Your task to perform on an android device: Do I have any events tomorrow? Image 0: 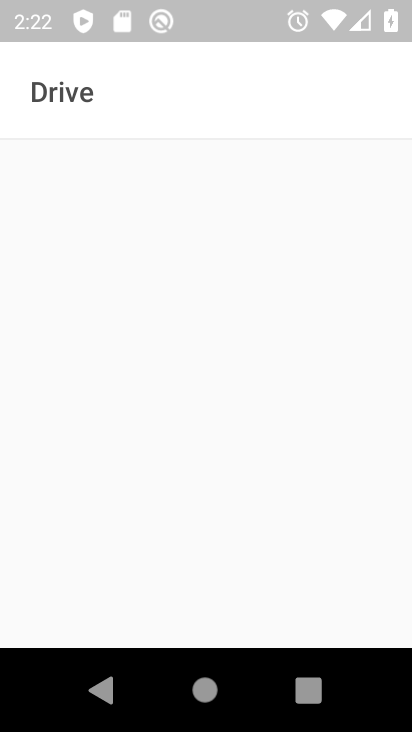
Step 0: press home button
Your task to perform on an android device: Do I have any events tomorrow? Image 1: 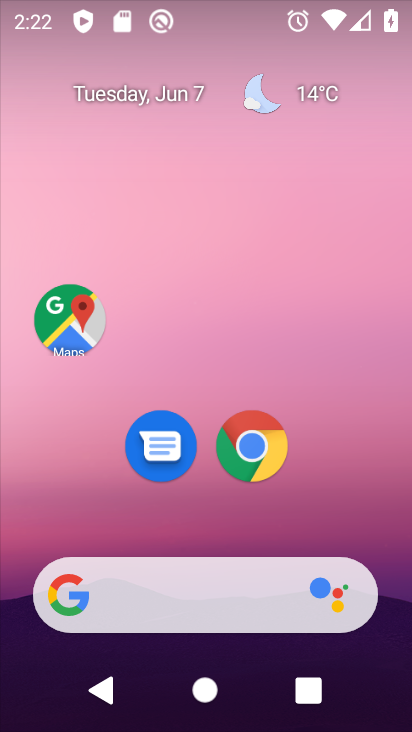
Step 1: drag from (394, 562) to (344, 100)
Your task to perform on an android device: Do I have any events tomorrow? Image 2: 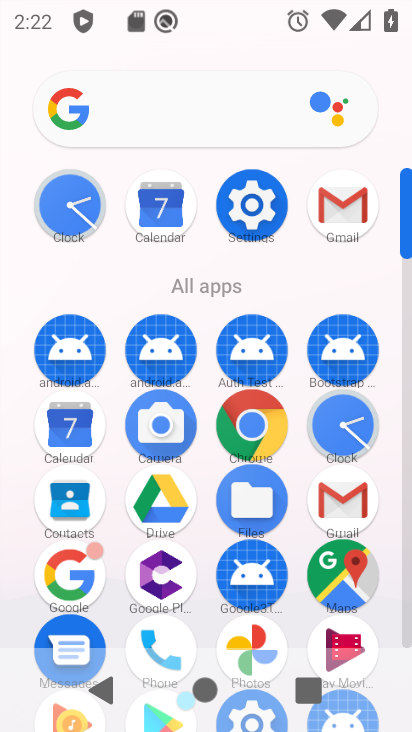
Step 2: click (67, 422)
Your task to perform on an android device: Do I have any events tomorrow? Image 3: 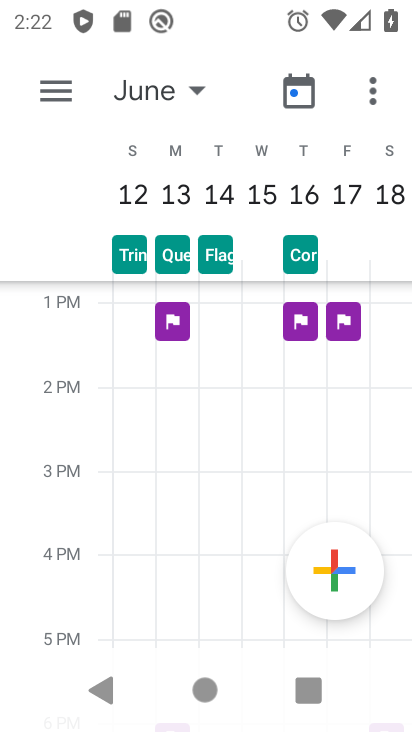
Step 3: click (59, 96)
Your task to perform on an android device: Do I have any events tomorrow? Image 4: 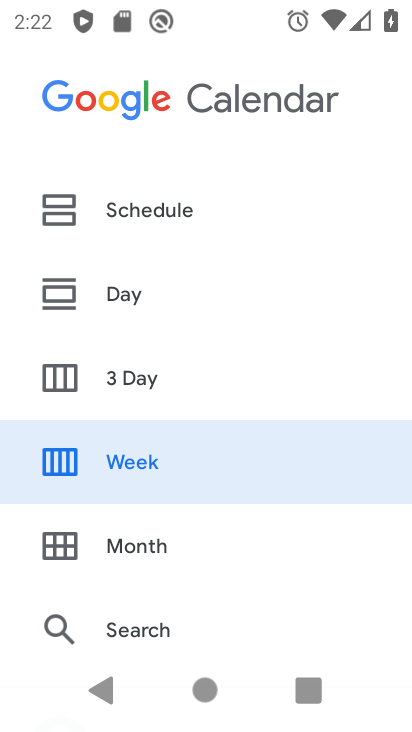
Step 4: click (141, 295)
Your task to perform on an android device: Do I have any events tomorrow? Image 5: 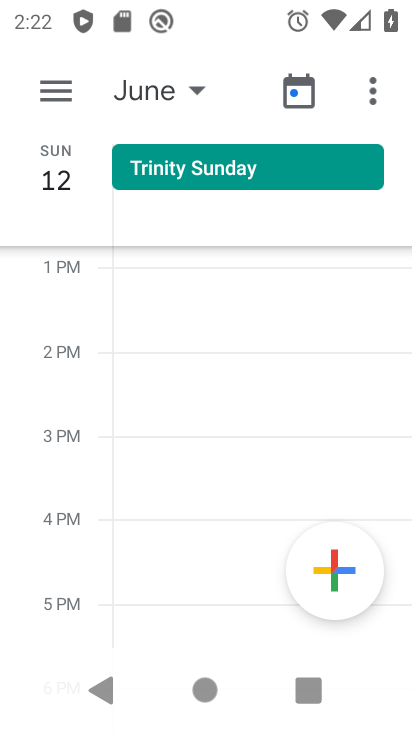
Step 5: click (189, 79)
Your task to perform on an android device: Do I have any events tomorrow? Image 6: 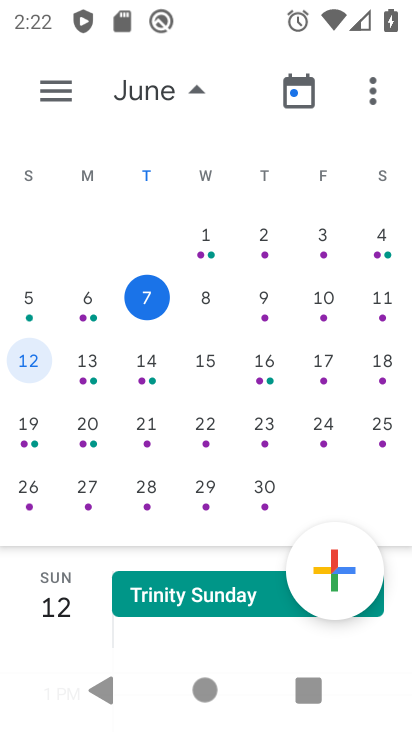
Step 6: drag from (97, 385) to (384, 362)
Your task to perform on an android device: Do I have any events tomorrow? Image 7: 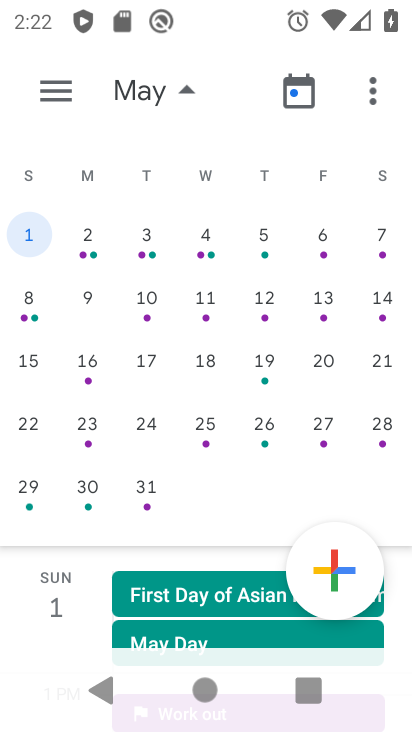
Step 7: drag from (397, 359) to (30, 350)
Your task to perform on an android device: Do I have any events tomorrow? Image 8: 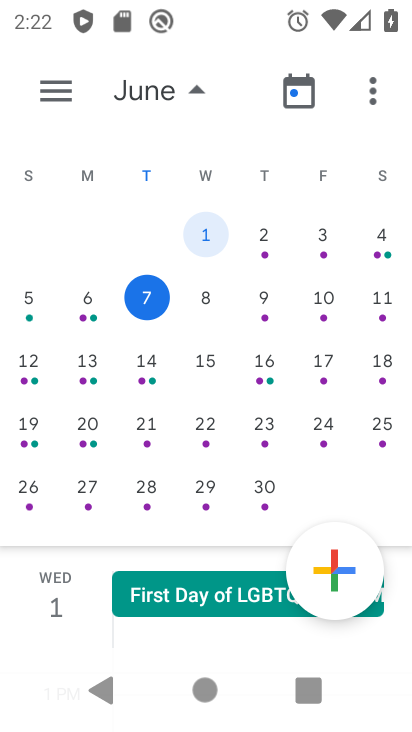
Step 8: click (203, 295)
Your task to perform on an android device: Do I have any events tomorrow? Image 9: 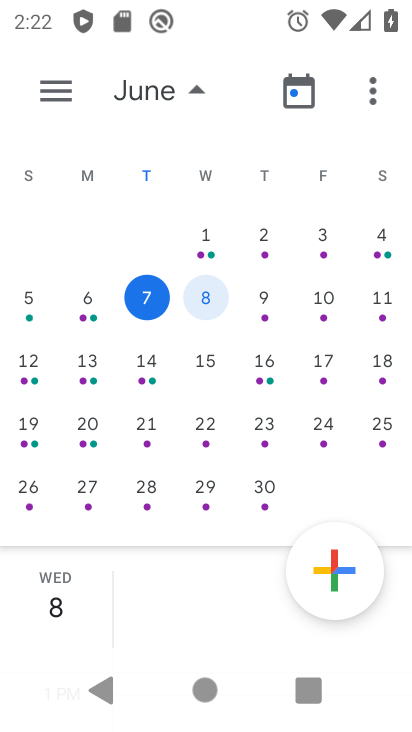
Step 9: task complete